Your task to perform on an android device: Go to notification settings Image 0: 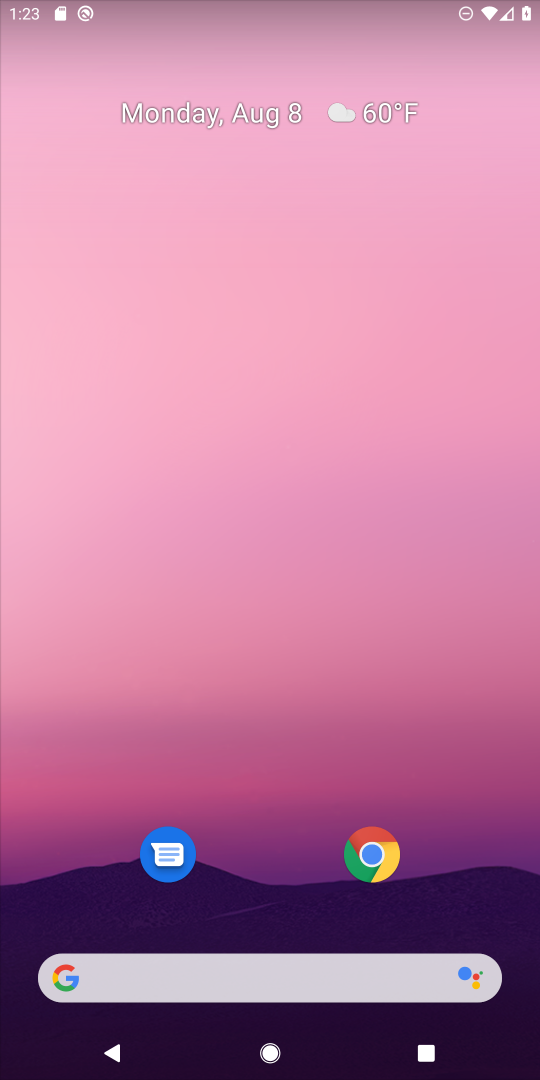
Step 0: press home button
Your task to perform on an android device: Go to notification settings Image 1: 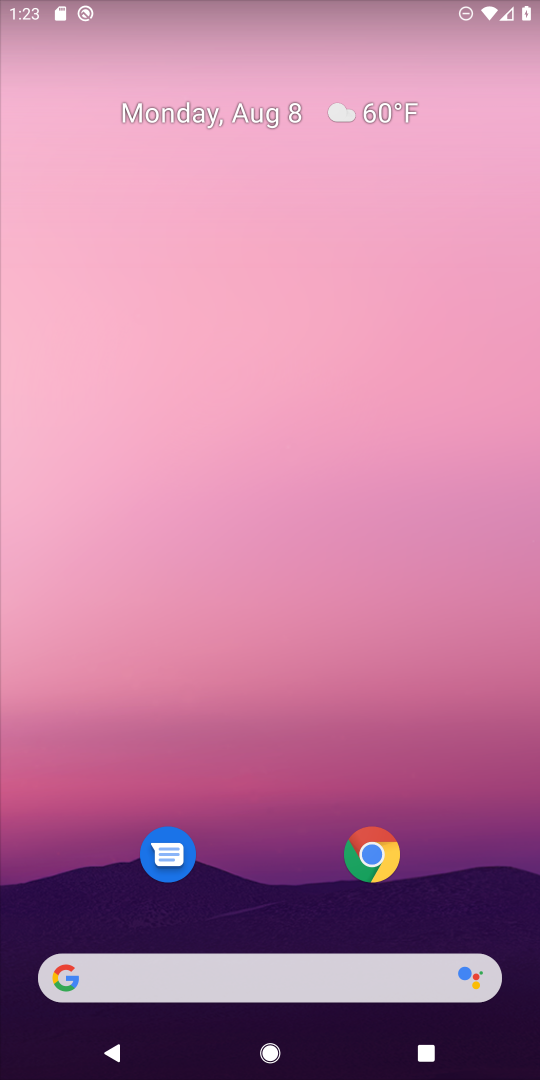
Step 1: click (201, 286)
Your task to perform on an android device: Go to notification settings Image 2: 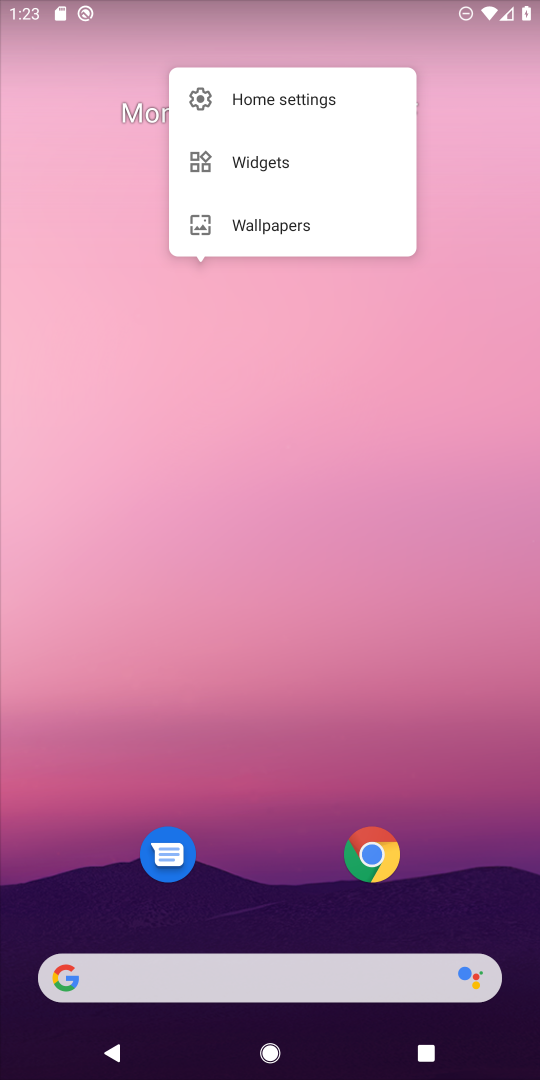
Step 2: drag from (291, 841) to (193, 141)
Your task to perform on an android device: Go to notification settings Image 3: 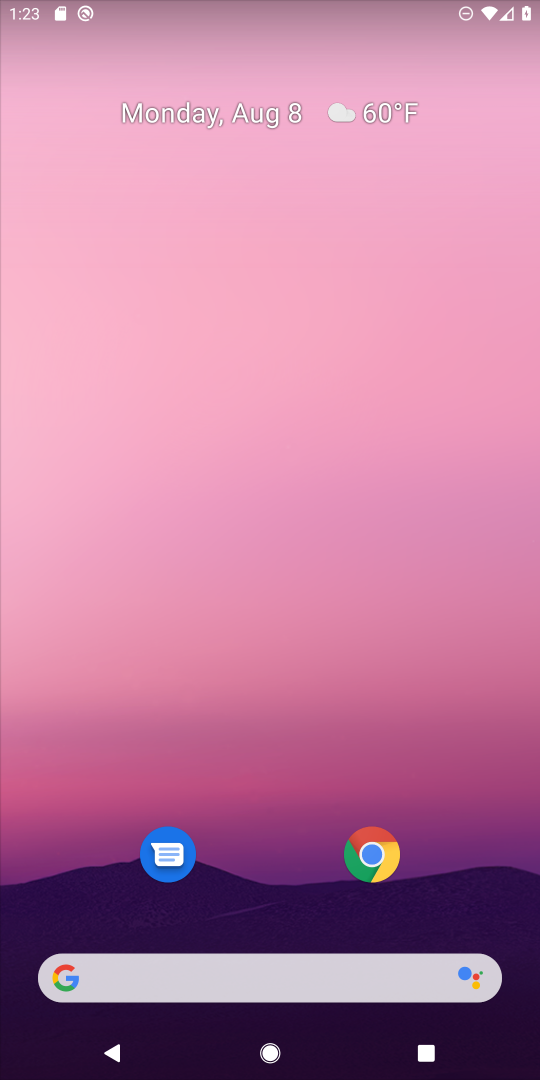
Step 3: drag from (281, 872) to (233, 152)
Your task to perform on an android device: Go to notification settings Image 4: 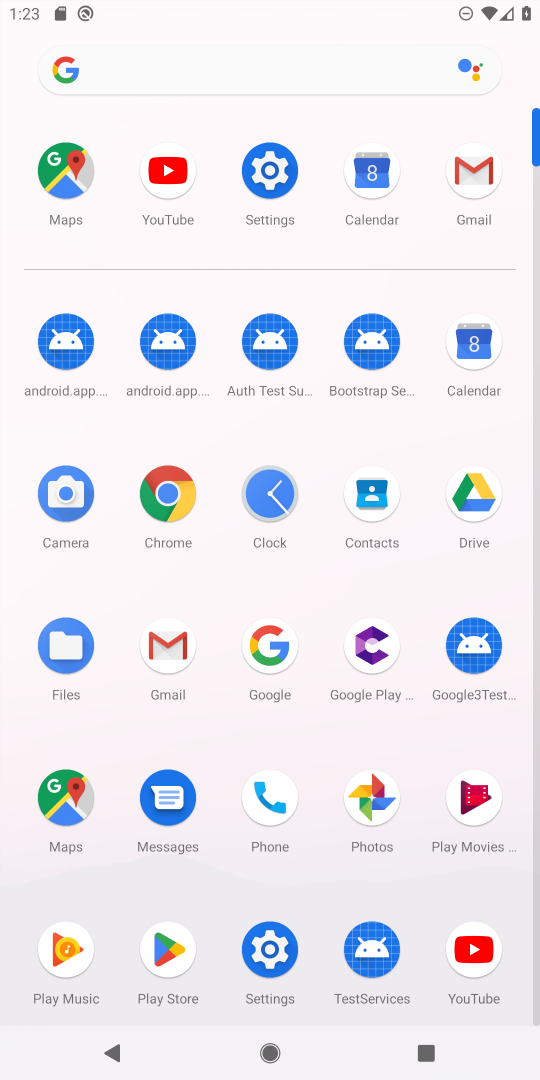
Step 4: click (273, 169)
Your task to perform on an android device: Go to notification settings Image 5: 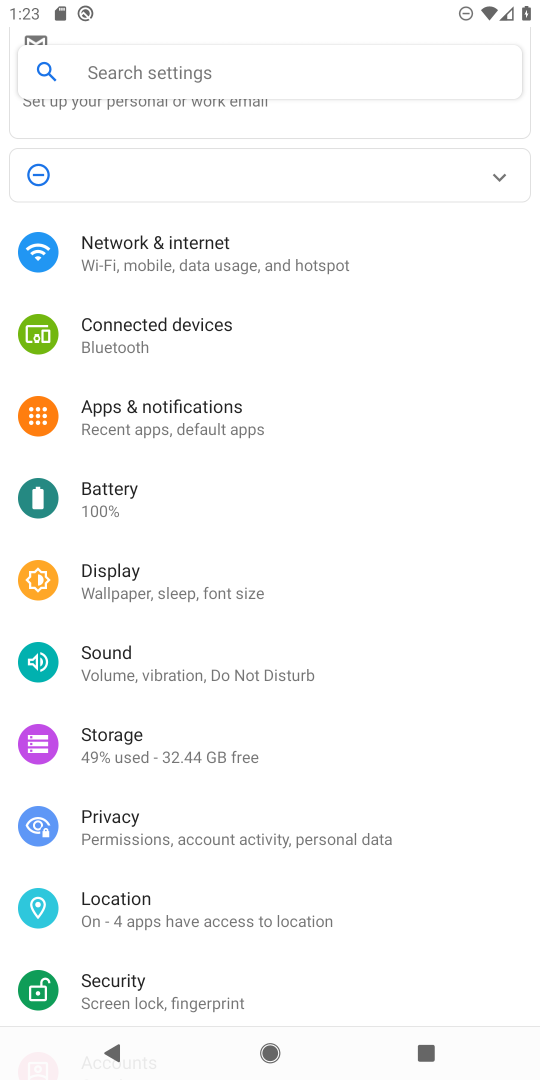
Step 5: click (146, 419)
Your task to perform on an android device: Go to notification settings Image 6: 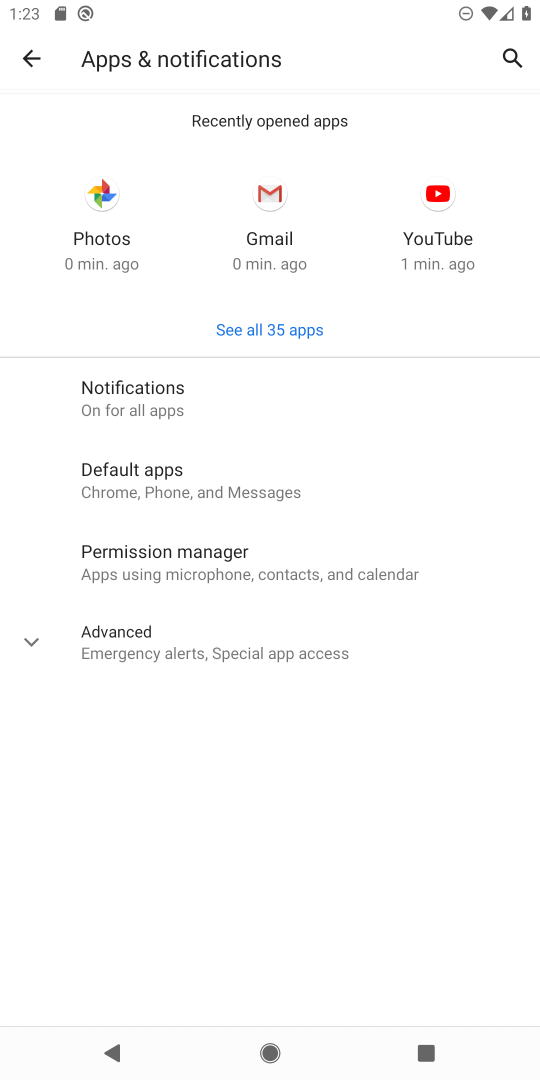
Step 6: click (112, 388)
Your task to perform on an android device: Go to notification settings Image 7: 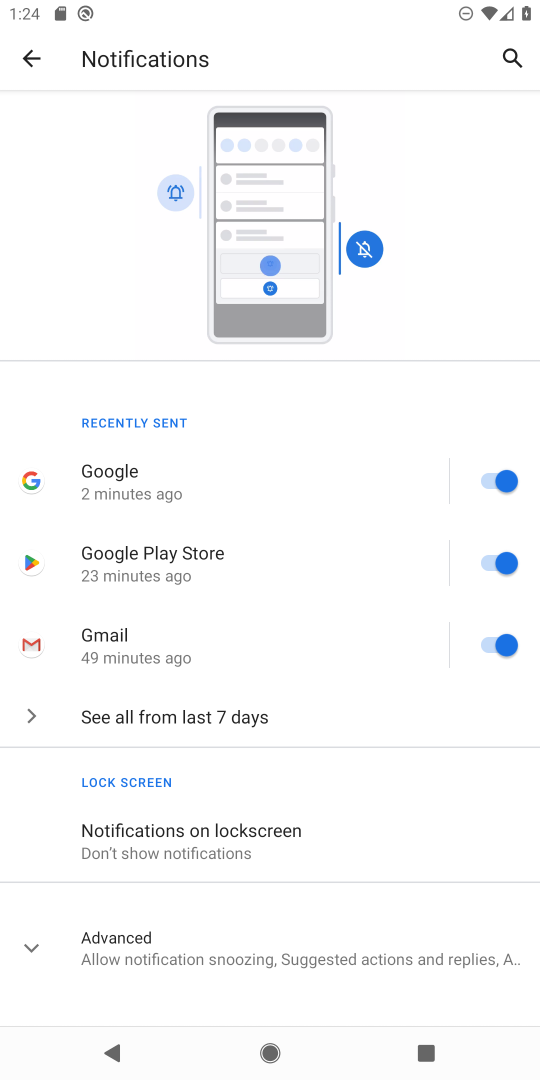
Step 7: click (368, 251)
Your task to perform on an android device: Go to notification settings Image 8: 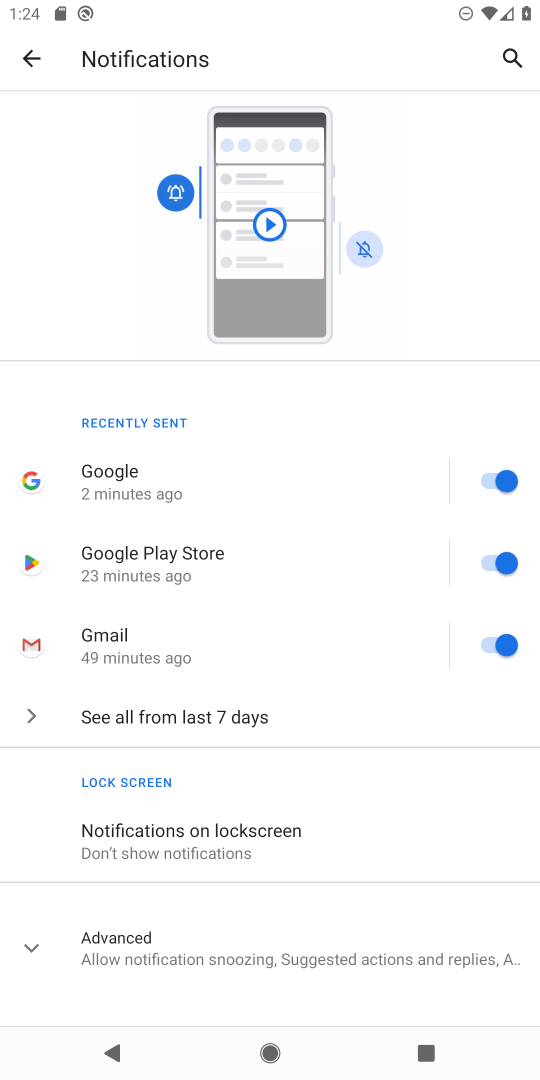
Step 8: task complete